Your task to perform on an android device: Go to notification settings Image 0: 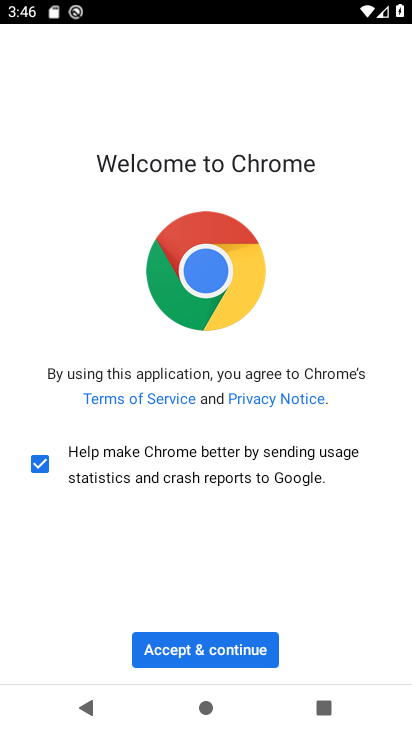
Step 0: press home button
Your task to perform on an android device: Go to notification settings Image 1: 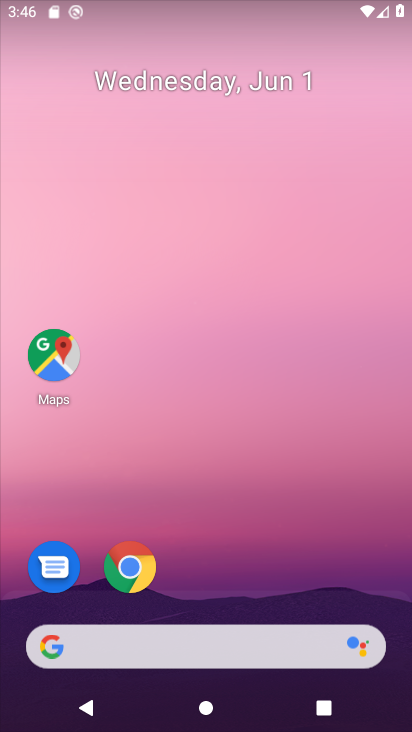
Step 1: drag from (262, 77) to (221, 0)
Your task to perform on an android device: Go to notification settings Image 2: 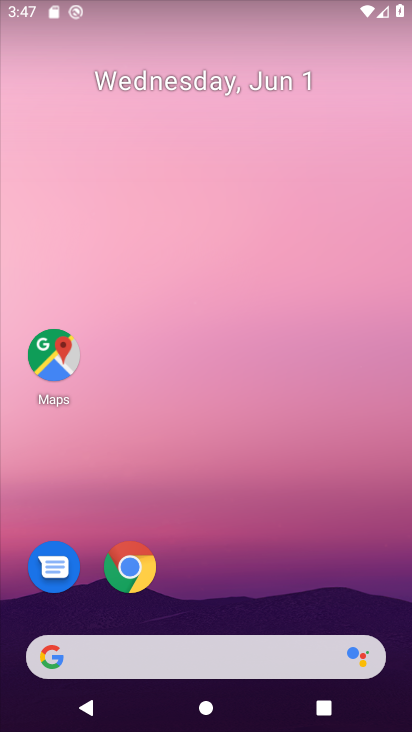
Step 2: drag from (237, 602) to (219, 19)
Your task to perform on an android device: Go to notification settings Image 3: 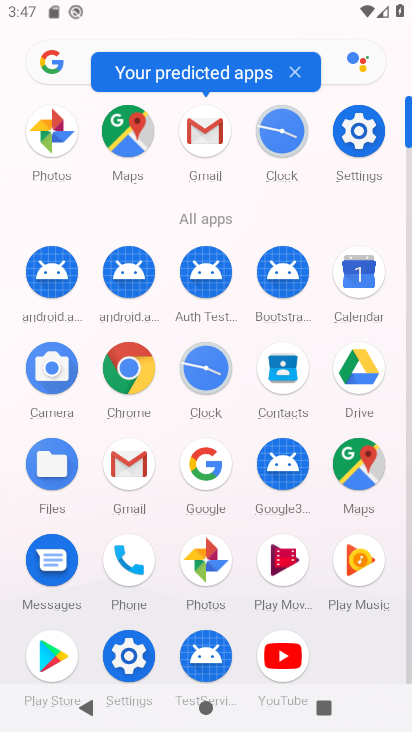
Step 3: click (135, 641)
Your task to perform on an android device: Go to notification settings Image 4: 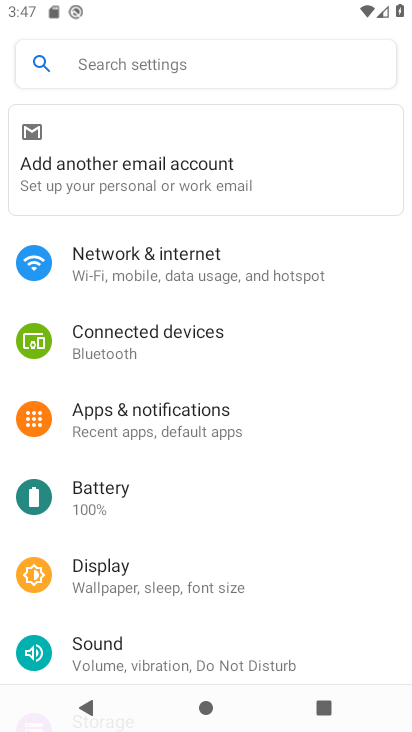
Step 4: click (180, 424)
Your task to perform on an android device: Go to notification settings Image 5: 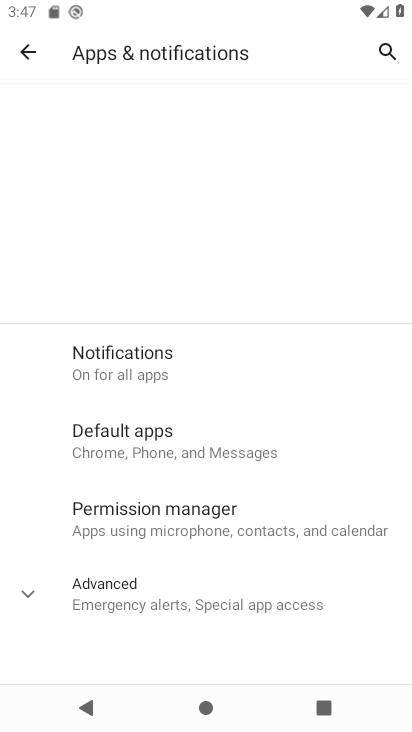
Step 5: click (117, 364)
Your task to perform on an android device: Go to notification settings Image 6: 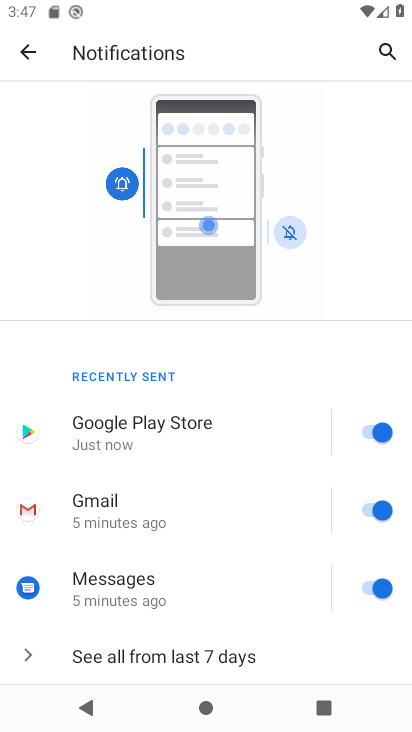
Step 6: task complete